Your task to perform on an android device: turn on bluetooth scan Image 0: 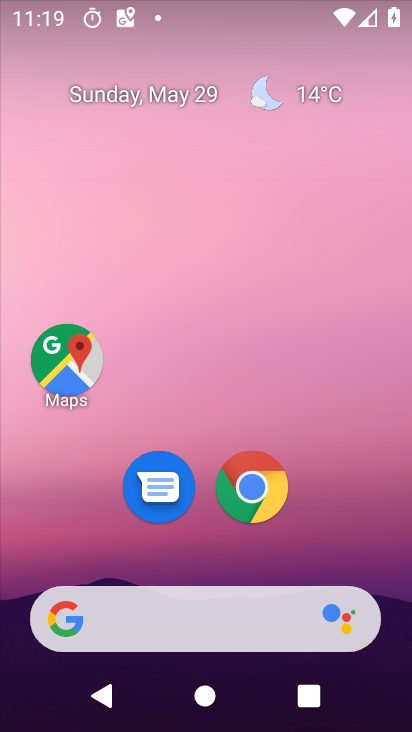
Step 0: drag from (393, 663) to (333, 119)
Your task to perform on an android device: turn on bluetooth scan Image 1: 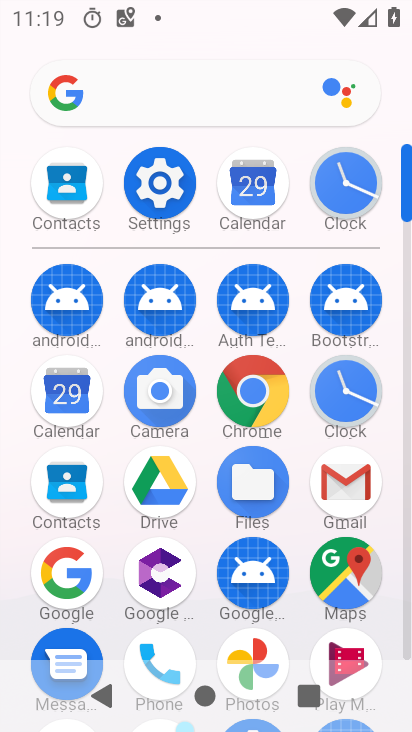
Step 1: click (136, 196)
Your task to perform on an android device: turn on bluetooth scan Image 2: 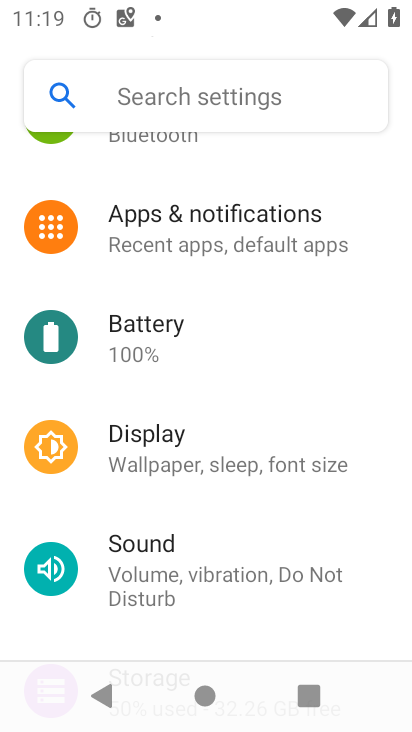
Step 2: drag from (333, 426) to (271, 183)
Your task to perform on an android device: turn on bluetooth scan Image 3: 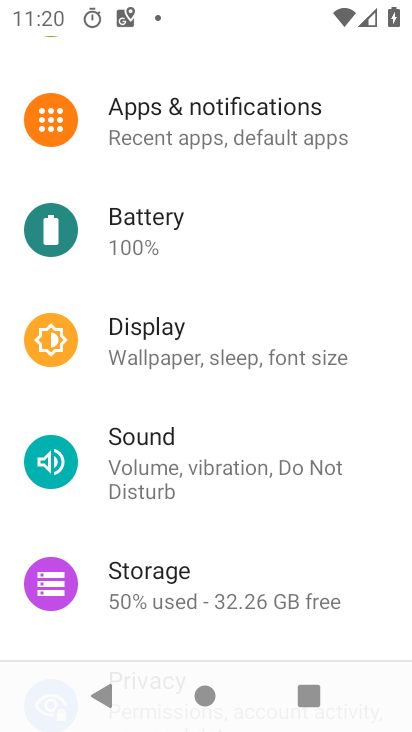
Step 3: drag from (254, 624) to (276, 251)
Your task to perform on an android device: turn on bluetooth scan Image 4: 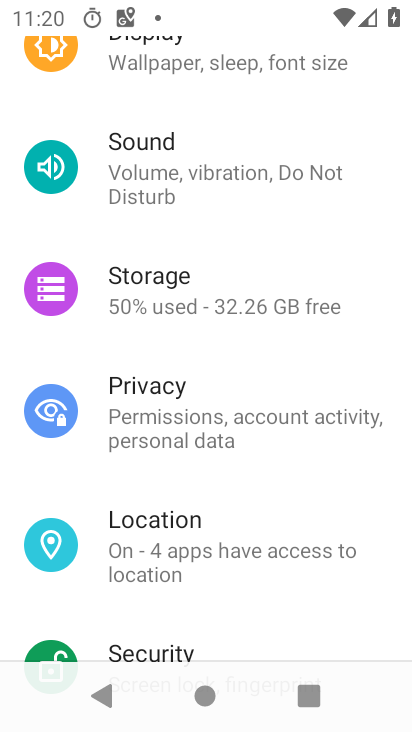
Step 4: click (163, 526)
Your task to perform on an android device: turn on bluetooth scan Image 5: 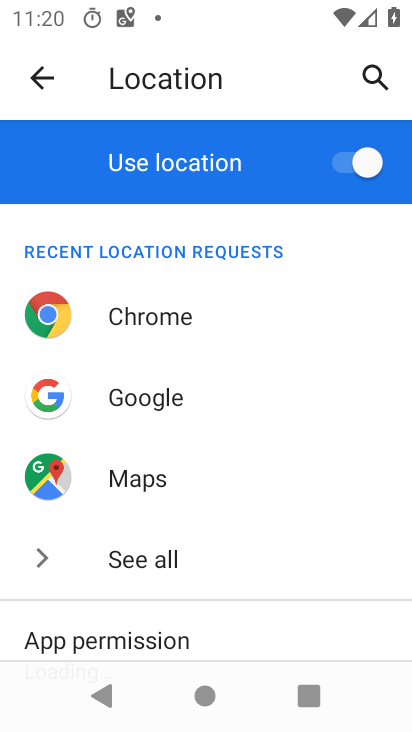
Step 5: drag from (264, 642) to (270, 249)
Your task to perform on an android device: turn on bluetooth scan Image 6: 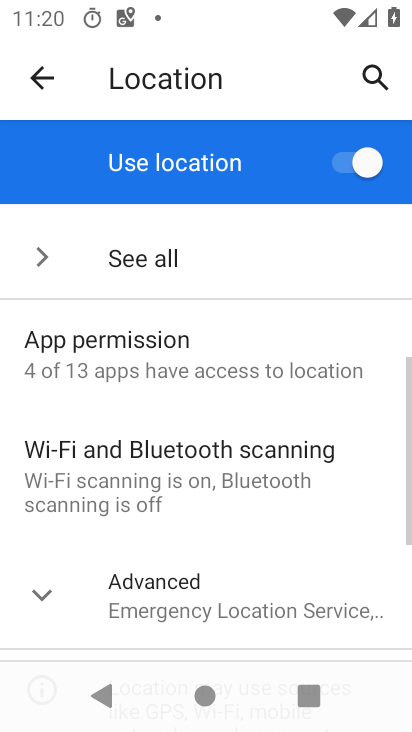
Step 6: click (263, 451)
Your task to perform on an android device: turn on bluetooth scan Image 7: 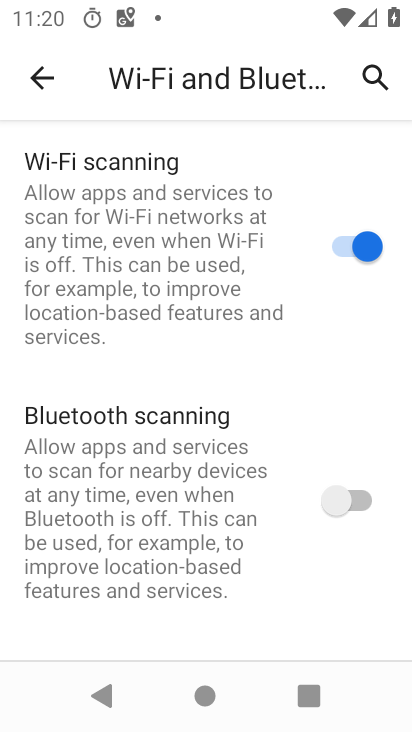
Step 7: click (365, 498)
Your task to perform on an android device: turn on bluetooth scan Image 8: 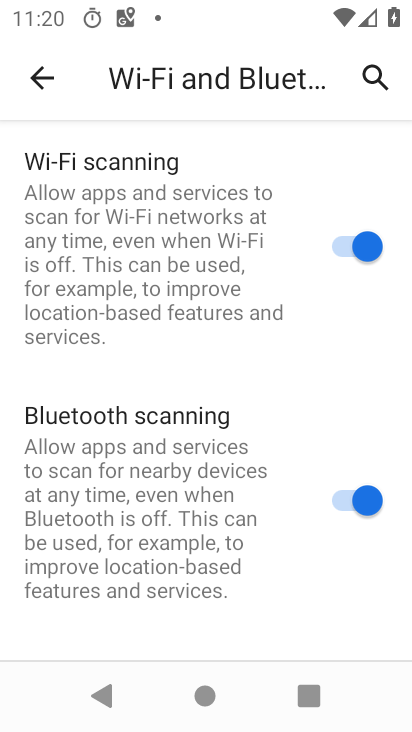
Step 8: task complete